Your task to perform on an android device: Go to network settings Image 0: 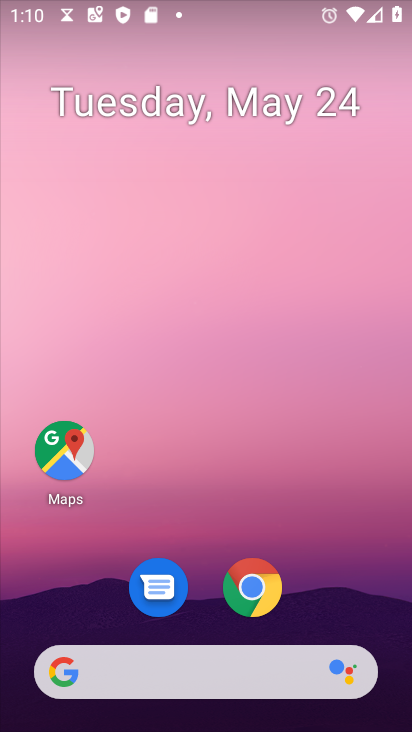
Step 0: drag from (218, 667) to (185, 145)
Your task to perform on an android device: Go to network settings Image 1: 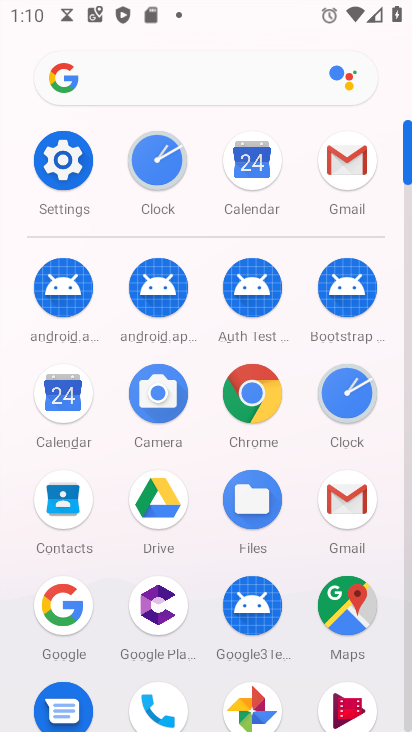
Step 1: click (74, 167)
Your task to perform on an android device: Go to network settings Image 2: 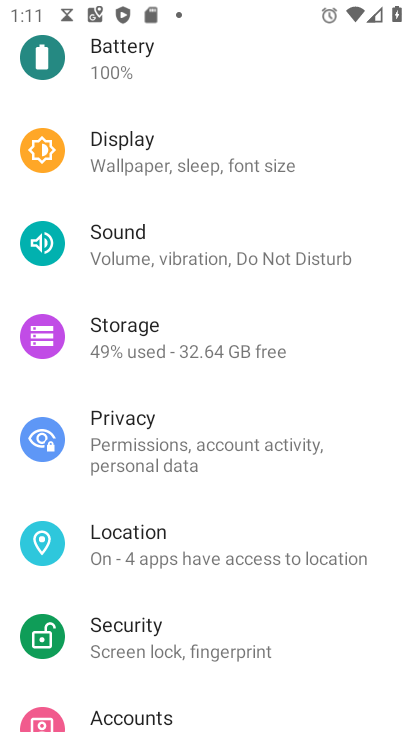
Step 2: drag from (226, 110) to (240, 543)
Your task to perform on an android device: Go to network settings Image 3: 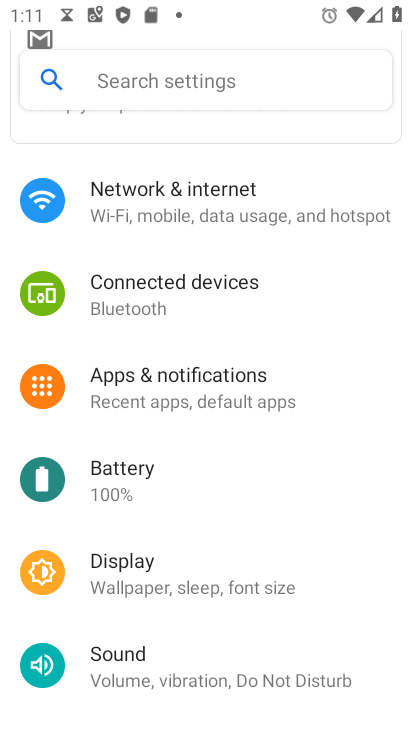
Step 3: click (170, 206)
Your task to perform on an android device: Go to network settings Image 4: 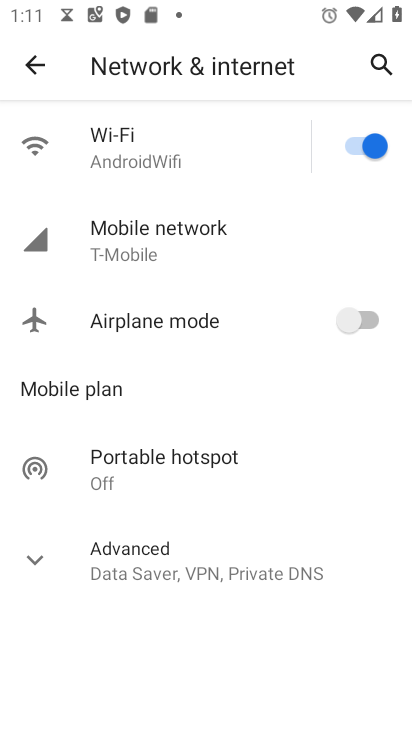
Step 4: task complete